Your task to perform on an android device: remove spam from my inbox in the gmail app Image 0: 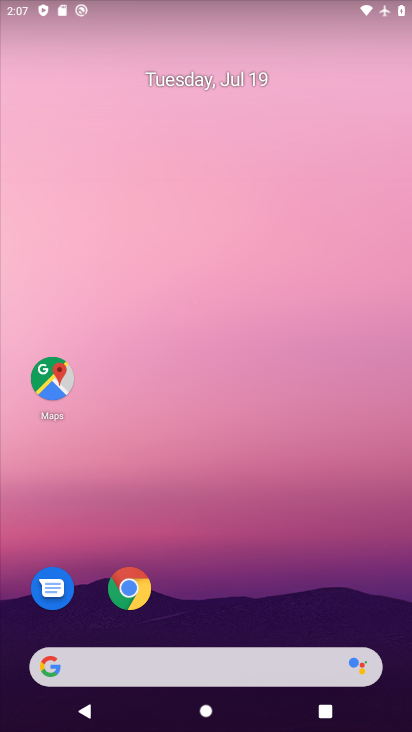
Step 0: press home button
Your task to perform on an android device: remove spam from my inbox in the gmail app Image 1: 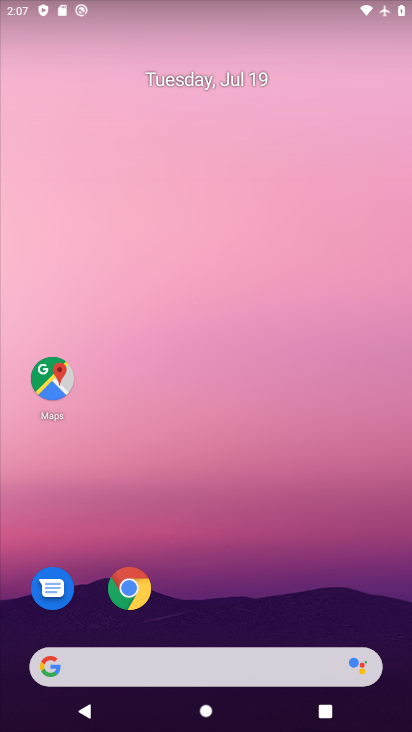
Step 1: drag from (259, 638) to (227, 253)
Your task to perform on an android device: remove spam from my inbox in the gmail app Image 2: 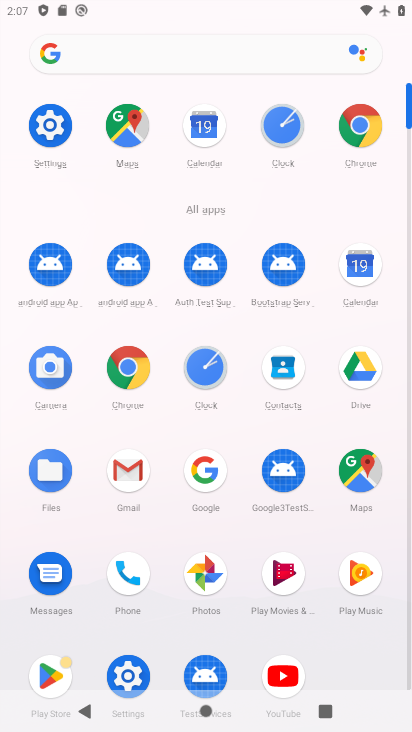
Step 2: click (136, 469)
Your task to perform on an android device: remove spam from my inbox in the gmail app Image 3: 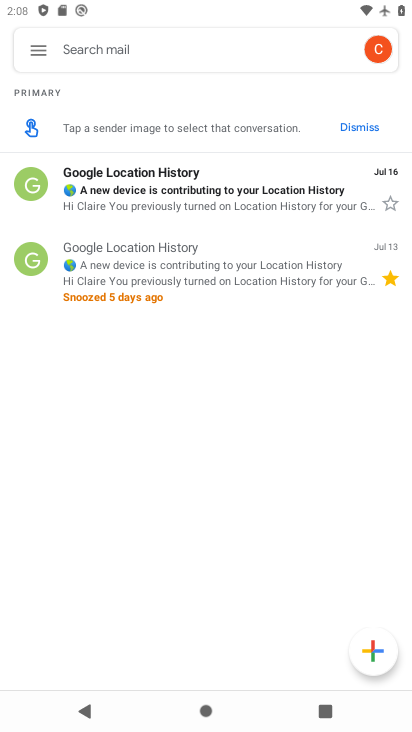
Step 3: click (43, 54)
Your task to perform on an android device: remove spam from my inbox in the gmail app Image 4: 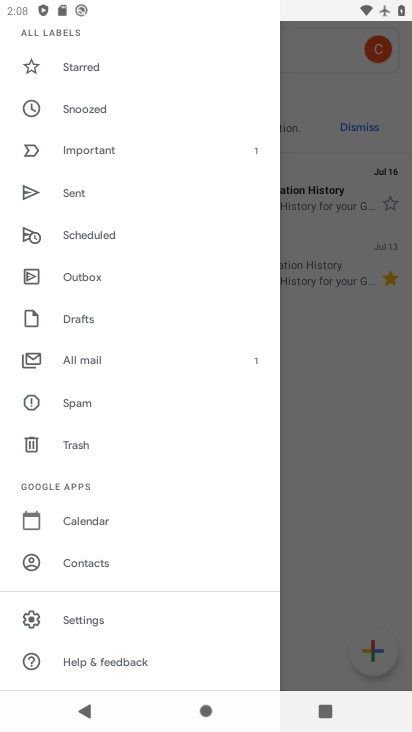
Step 4: click (78, 402)
Your task to perform on an android device: remove spam from my inbox in the gmail app Image 5: 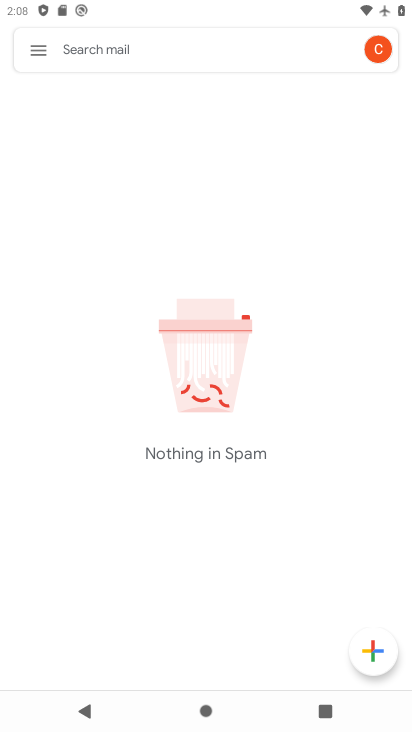
Step 5: task complete